Your task to perform on an android device: Open wifi settings Image 0: 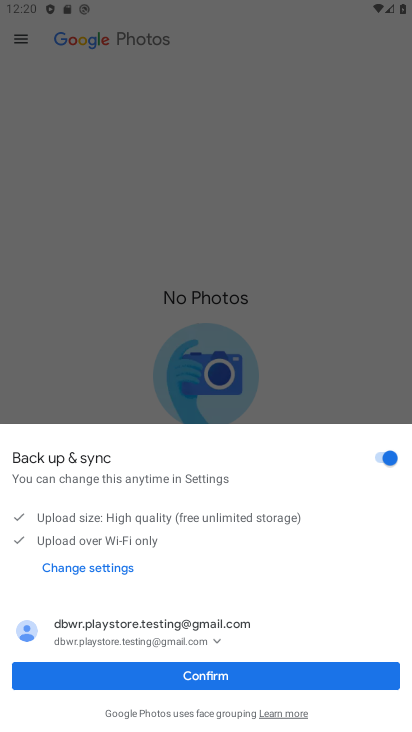
Step 0: press home button
Your task to perform on an android device: Open wifi settings Image 1: 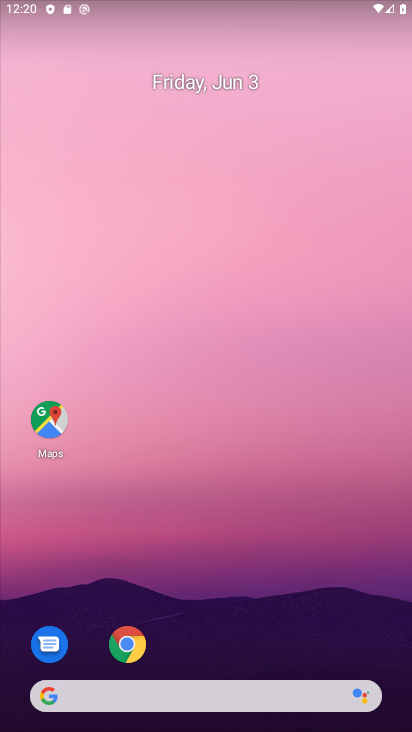
Step 1: drag from (208, 648) to (258, 114)
Your task to perform on an android device: Open wifi settings Image 2: 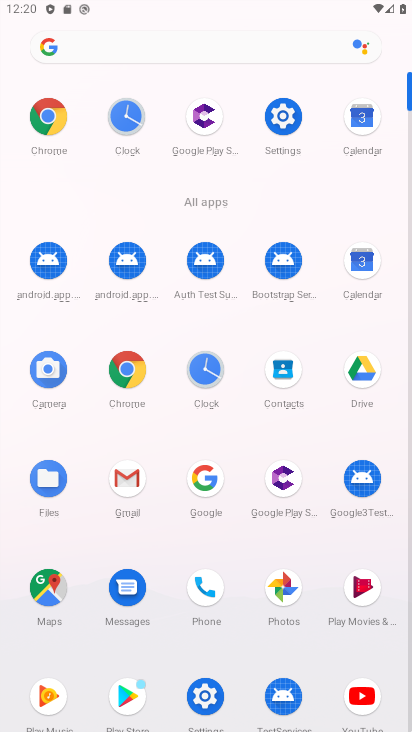
Step 2: click (286, 134)
Your task to perform on an android device: Open wifi settings Image 3: 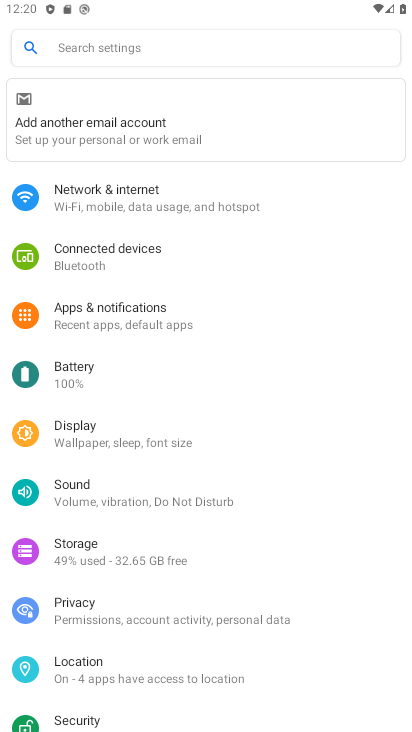
Step 3: click (156, 203)
Your task to perform on an android device: Open wifi settings Image 4: 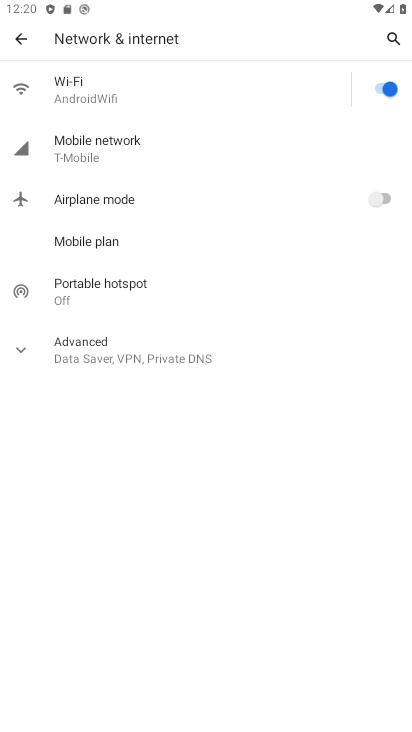
Step 4: click (141, 94)
Your task to perform on an android device: Open wifi settings Image 5: 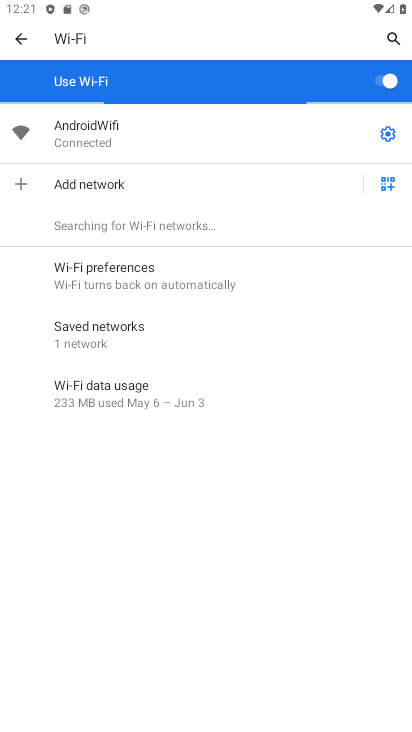
Step 5: task complete